Your task to perform on an android device: Go to Google Image 0: 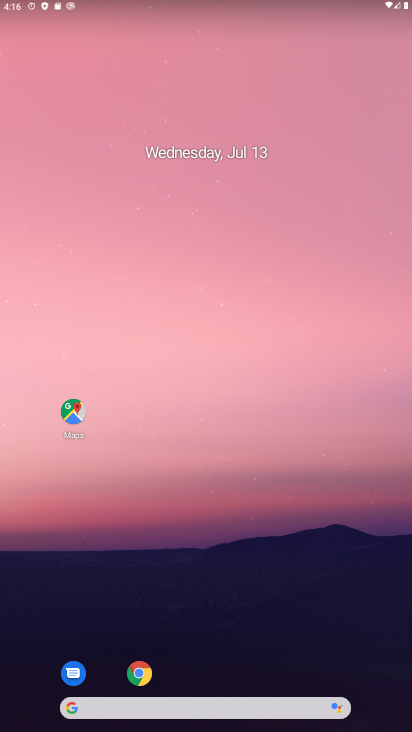
Step 0: drag from (303, 683) to (379, 2)
Your task to perform on an android device: Go to Google Image 1: 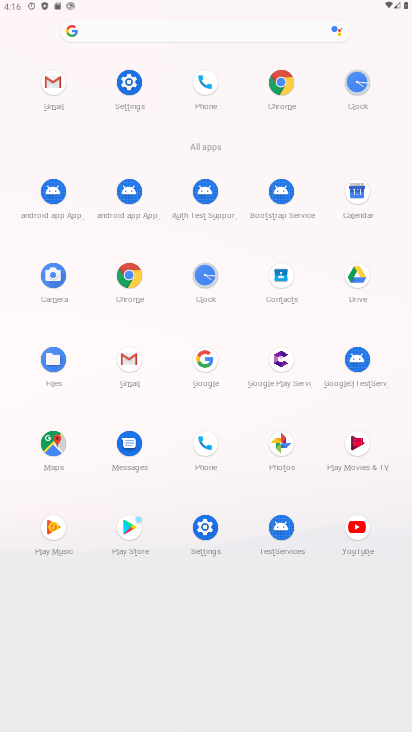
Step 1: click (197, 357)
Your task to perform on an android device: Go to Google Image 2: 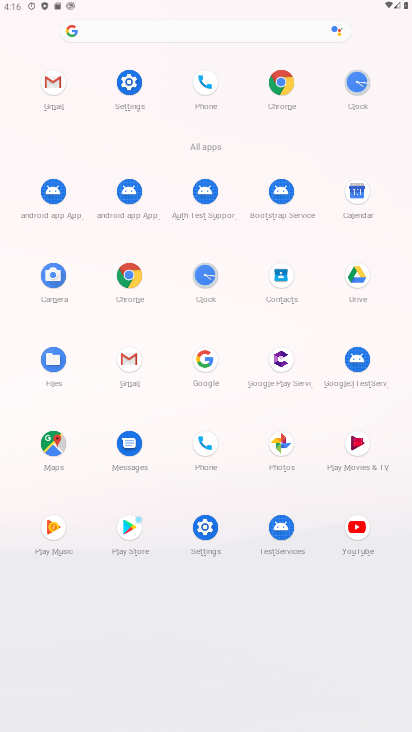
Step 2: click (202, 353)
Your task to perform on an android device: Go to Google Image 3: 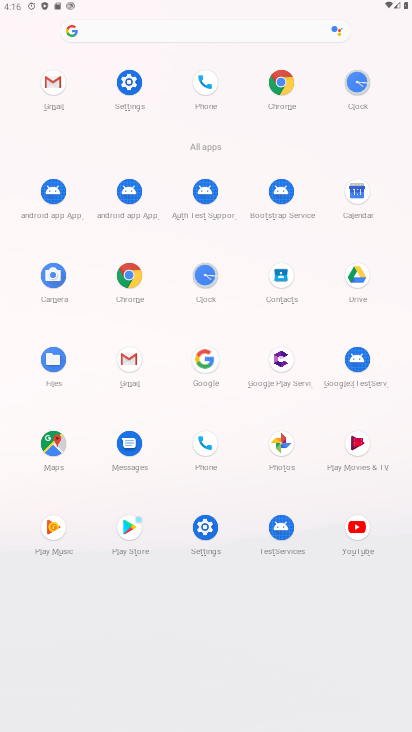
Step 3: click (203, 354)
Your task to perform on an android device: Go to Google Image 4: 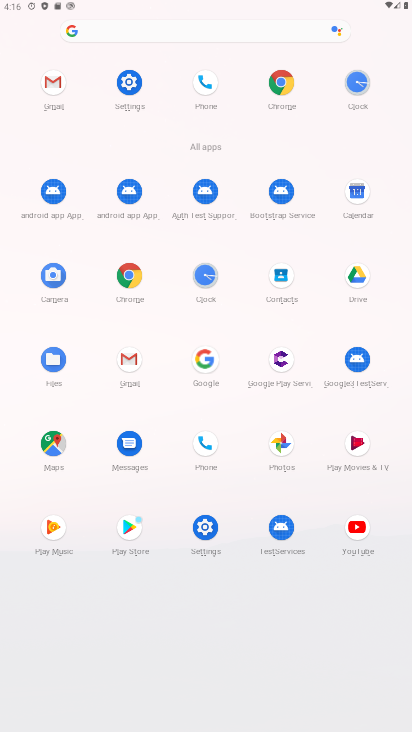
Step 4: click (205, 357)
Your task to perform on an android device: Go to Google Image 5: 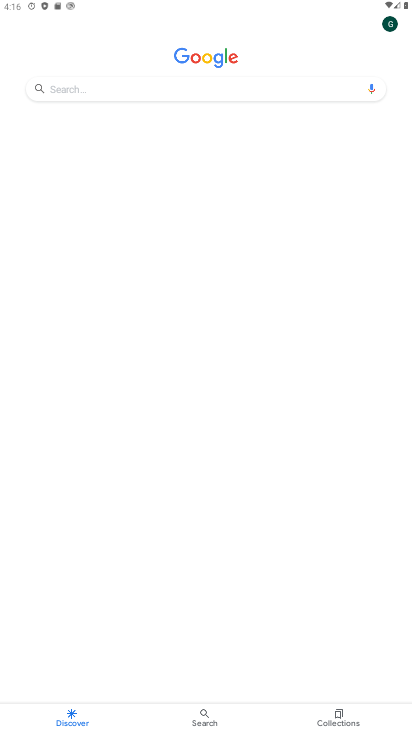
Step 5: click (207, 358)
Your task to perform on an android device: Go to Google Image 6: 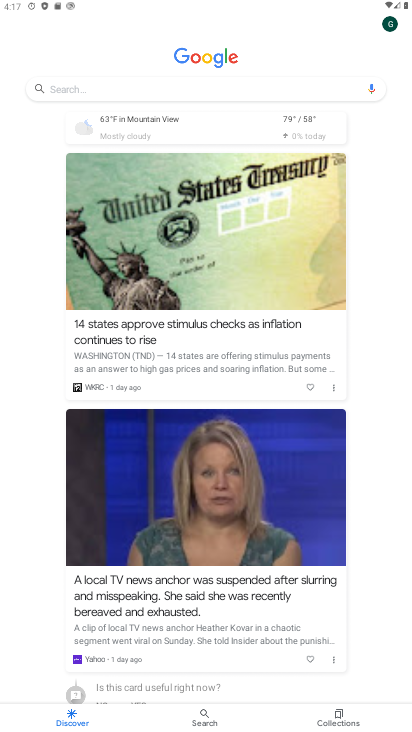
Step 6: task complete